Your task to perform on an android device: open chrome privacy settings Image 0: 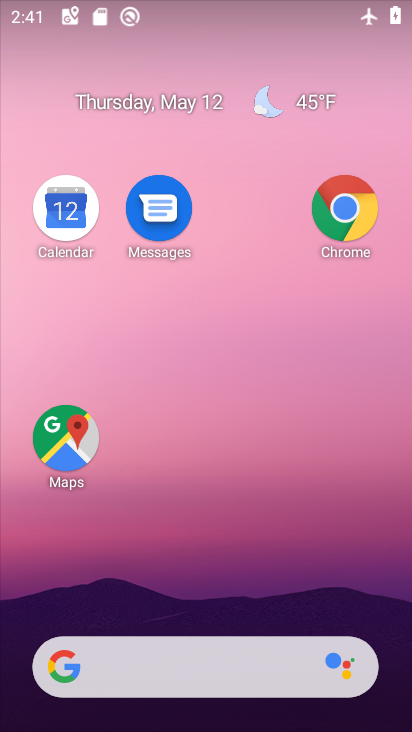
Step 0: drag from (200, 583) to (224, 141)
Your task to perform on an android device: open chrome privacy settings Image 1: 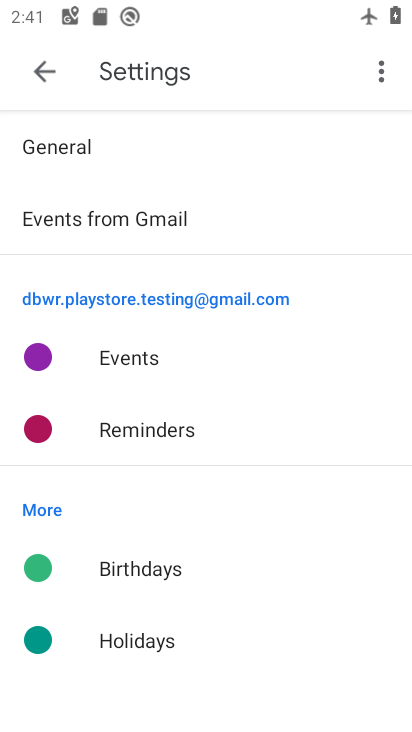
Step 1: press home button
Your task to perform on an android device: open chrome privacy settings Image 2: 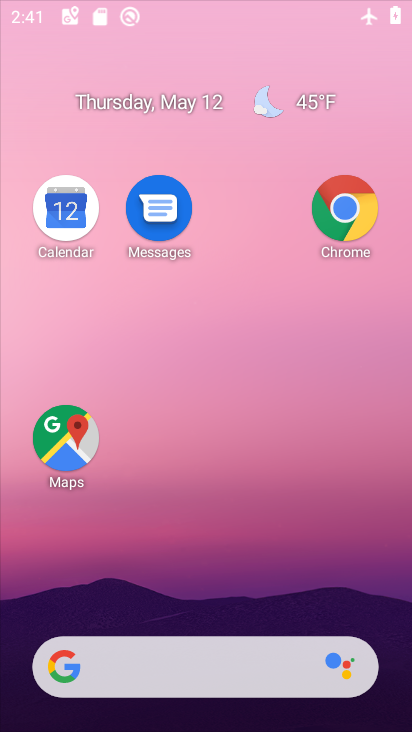
Step 2: drag from (150, 668) to (246, 348)
Your task to perform on an android device: open chrome privacy settings Image 3: 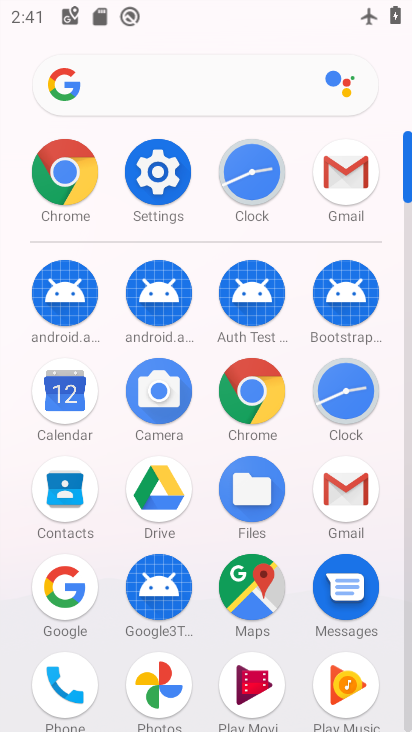
Step 3: click (255, 392)
Your task to perform on an android device: open chrome privacy settings Image 4: 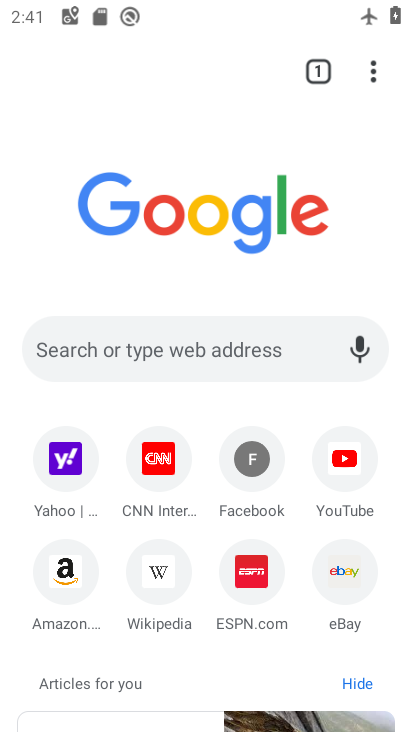
Step 4: click (379, 75)
Your task to perform on an android device: open chrome privacy settings Image 5: 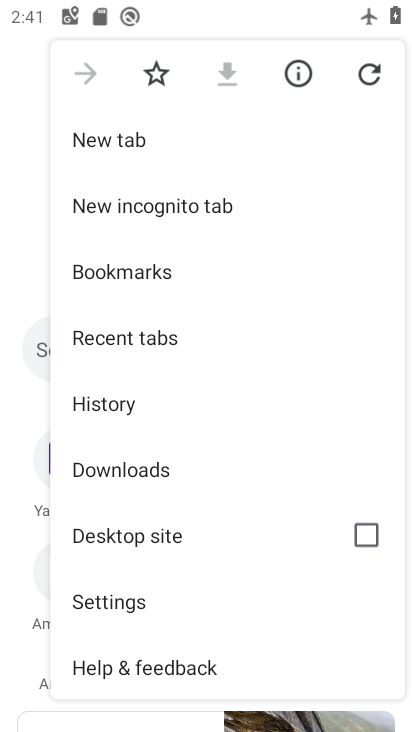
Step 5: drag from (212, 567) to (279, 188)
Your task to perform on an android device: open chrome privacy settings Image 6: 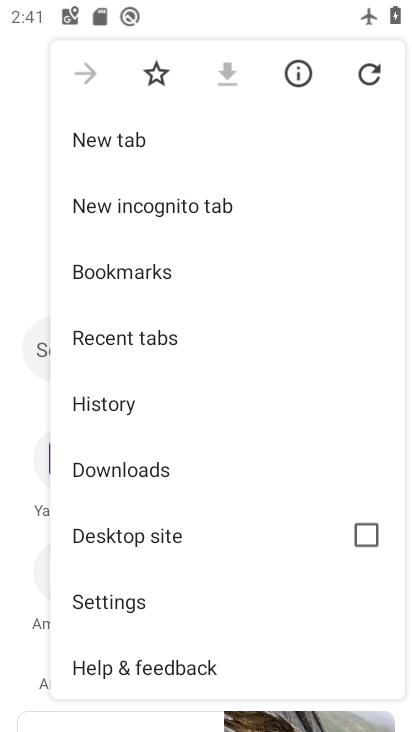
Step 6: click (116, 603)
Your task to perform on an android device: open chrome privacy settings Image 7: 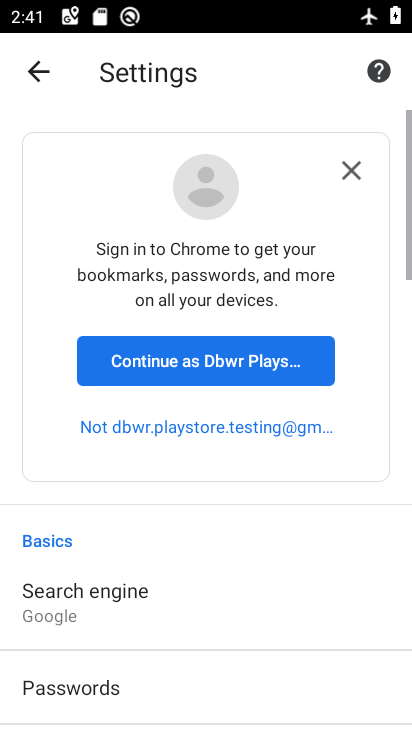
Step 7: drag from (186, 637) to (268, 295)
Your task to perform on an android device: open chrome privacy settings Image 8: 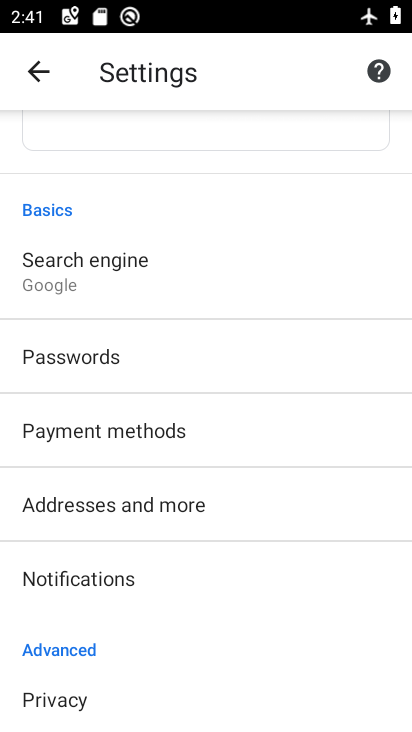
Step 8: drag from (162, 635) to (218, 374)
Your task to perform on an android device: open chrome privacy settings Image 9: 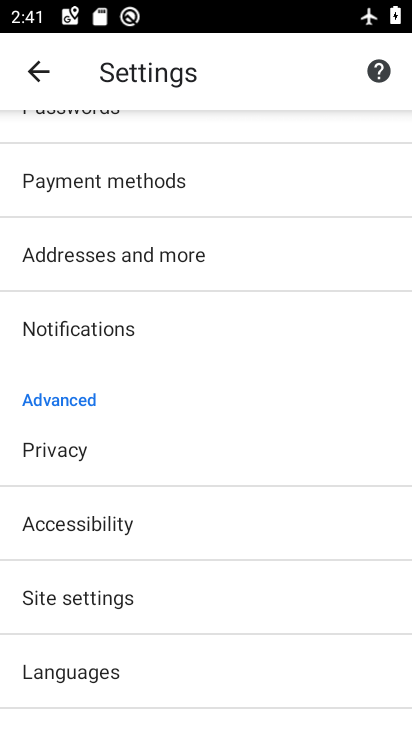
Step 9: click (70, 446)
Your task to perform on an android device: open chrome privacy settings Image 10: 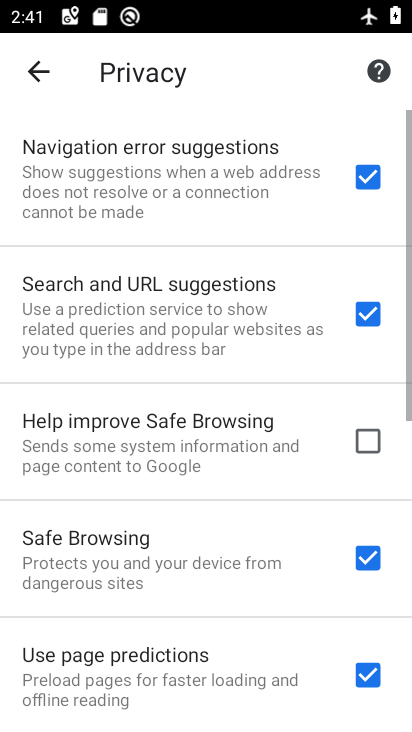
Step 10: task complete